Your task to perform on an android device: delete the emails in spam in the gmail app Image 0: 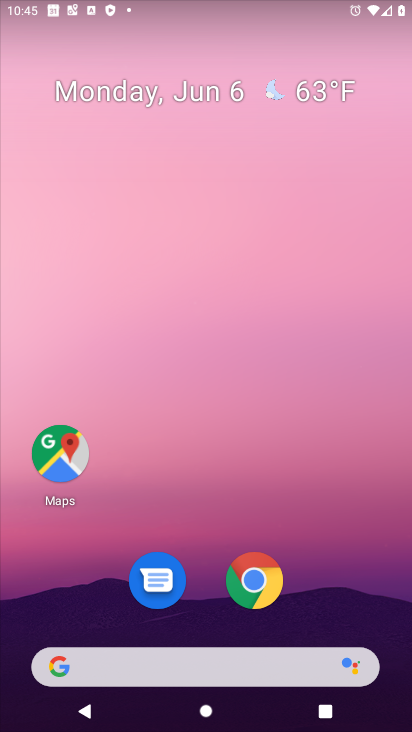
Step 0: drag from (376, 434) to (400, 21)
Your task to perform on an android device: delete the emails in spam in the gmail app Image 1: 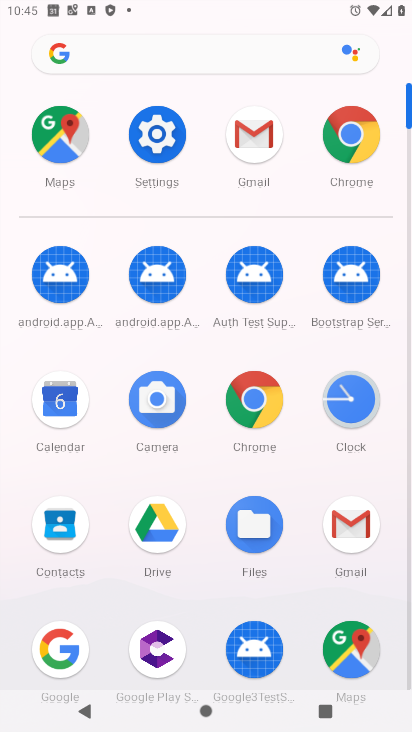
Step 1: click (253, 141)
Your task to perform on an android device: delete the emails in spam in the gmail app Image 2: 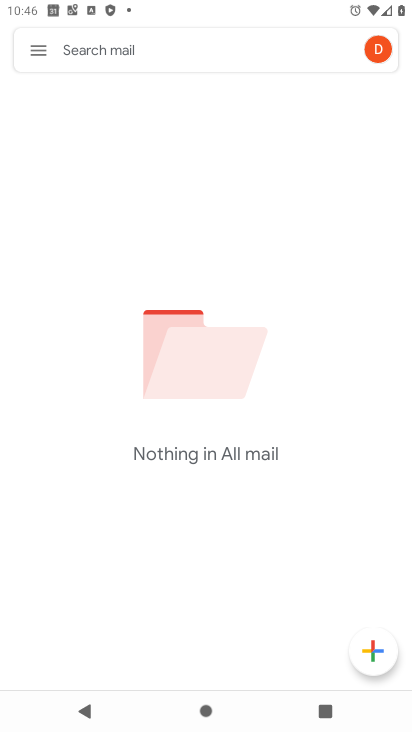
Step 2: click (47, 51)
Your task to perform on an android device: delete the emails in spam in the gmail app Image 3: 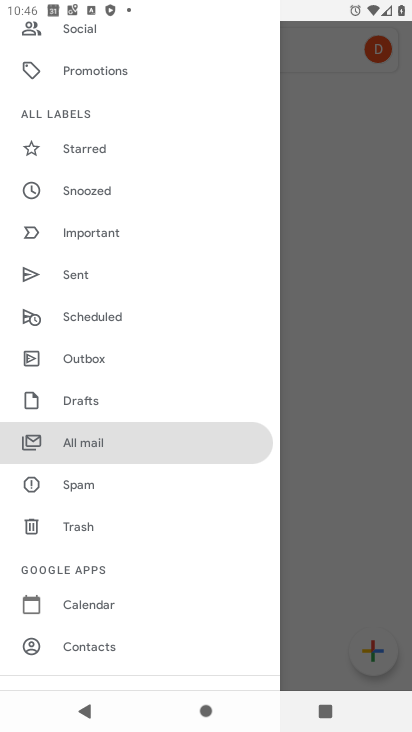
Step 3: drag from (155, 515) to (220, 91)
Your task to perform on an android device: delete the emails in spam in the gmail app Image 4: 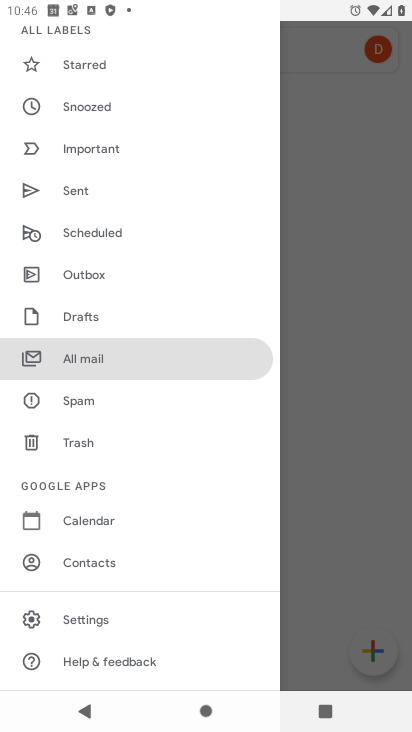
Step 4: click (63, 410)
Your task to perform on an android device: delete the emails in spam in the gmail app Image 5: 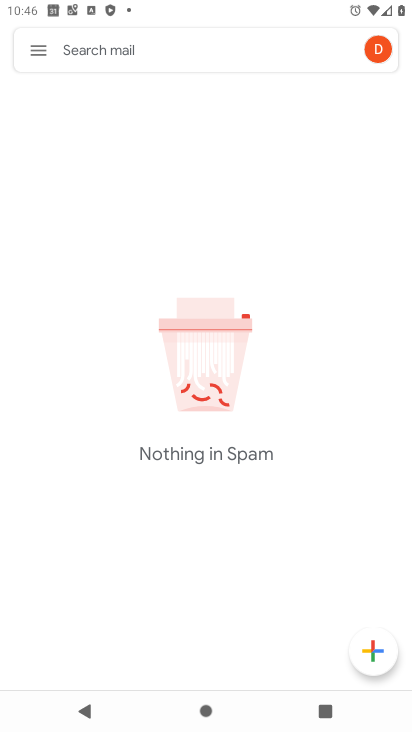
Step 5: task complete